Your task to perform on an android device: change keyboard looks Image 0: 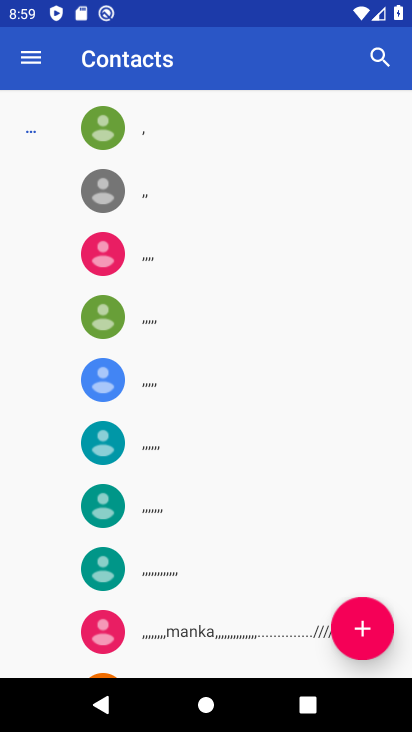
Step 0: press home button
Your task to perform on an android device: change keyboard looks Image 1: 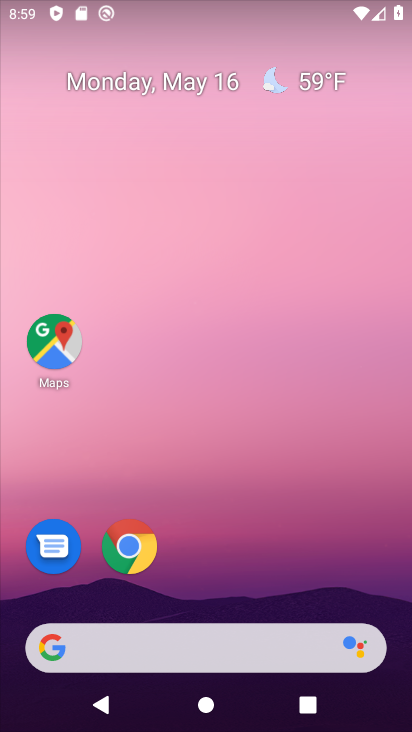
Step 1: drag from (285, 551) to (257, 40)
Your task to perform on an android device: change keyboard looks Image 2: 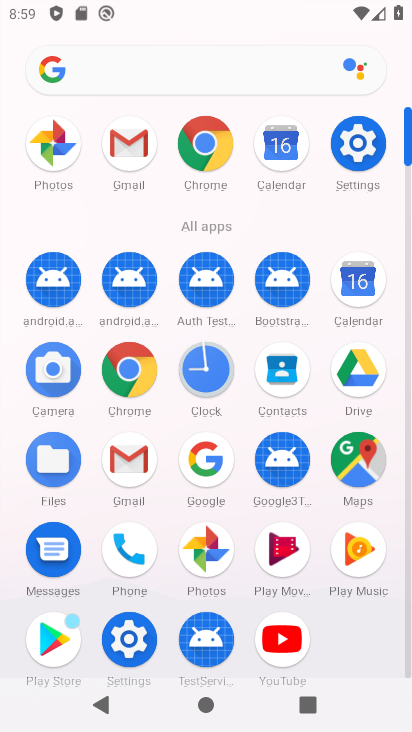
Step 2: click (363, 147)
Your task to perform on an android device: change keyboard looks Image 3: 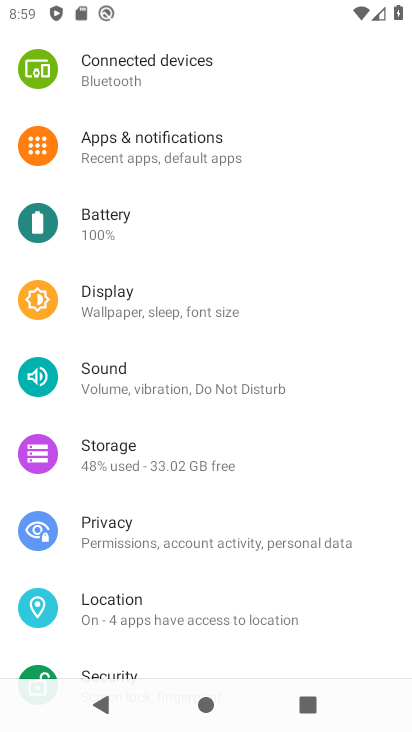
Step 3: drag from (197, 604) to (214, 163)
Your task to perform on an android device: change keyboard looks Image 4: 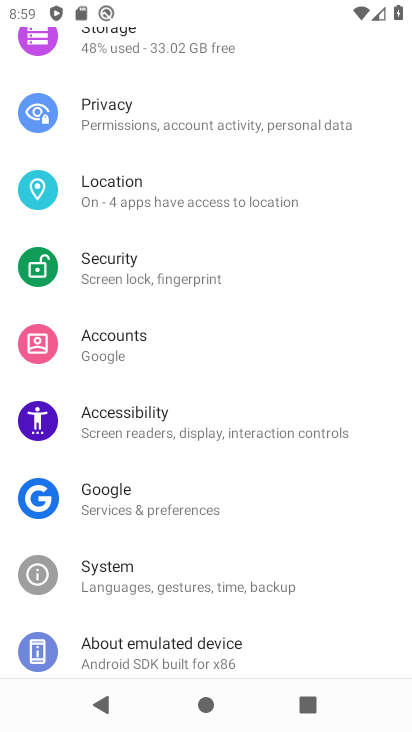
Step 4: drag from (174, 589) to (232, 252)
Your task to perform on an android device: change keyboard looks Image 5: 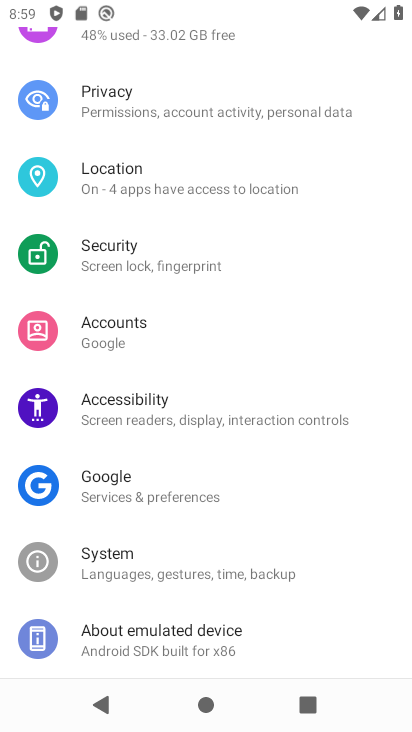
Step 5: click (176, 633)
Your task to perform on an android device: change keyboard looks Image 6: 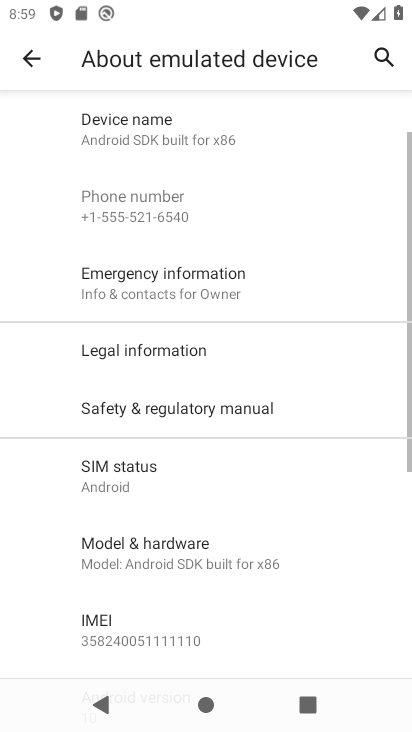
Step 6: drag from (184, 631) to (218, 230)
Your task to perform on an android device: change keyboard looks Image 7: 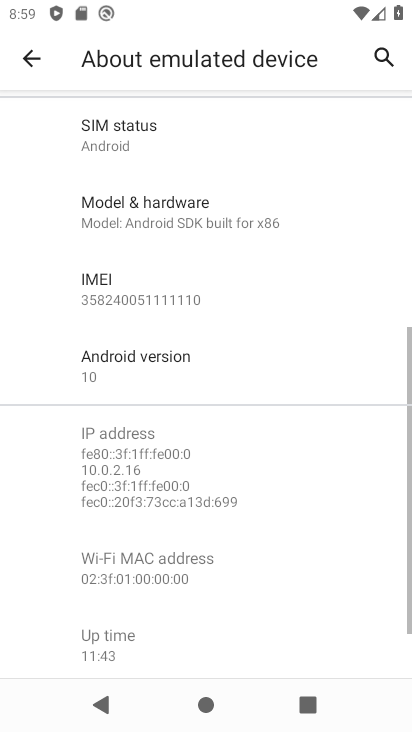
Step 7: click (32, 68)
Your task to perform on an android device: change keyboard looks Image 8: 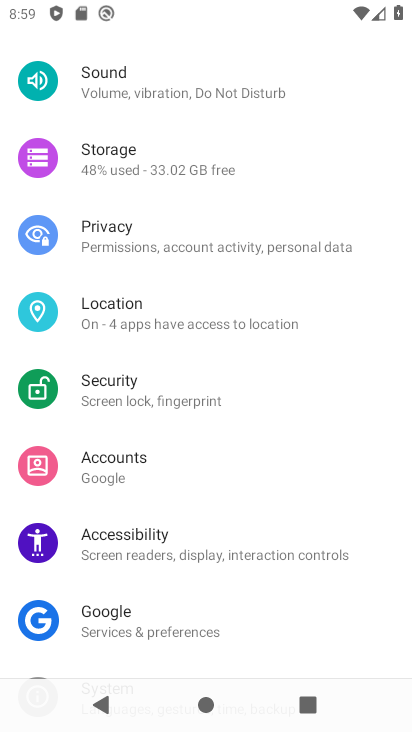
Step 8: drag from (219, 594) to (239, 222)
Your task to perform on an android device: change keyboard looks Image 9: 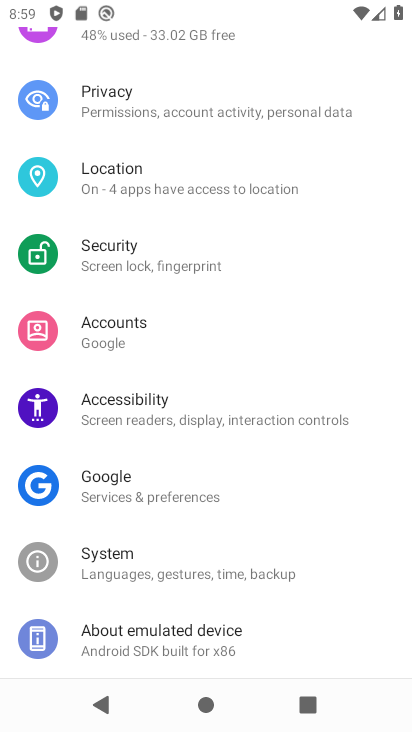
Step 9: drag from (204, 531) to (232, 313)
Your task to perform on an android device: change keyboard looks Image 10: 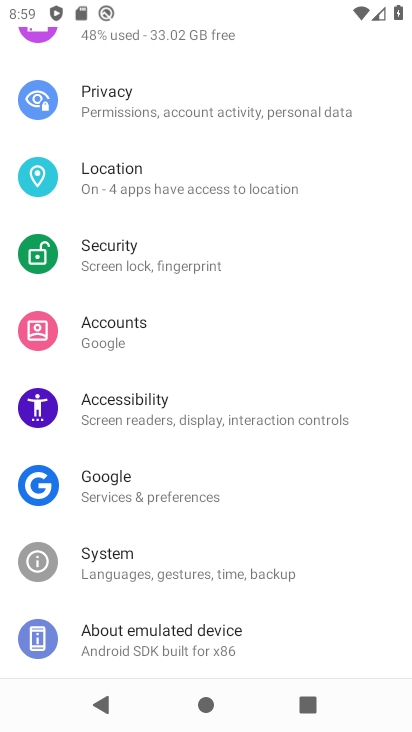
Step 10: click (189, 562)
Your task to perform on an android device: change keyboard looks Image 11: 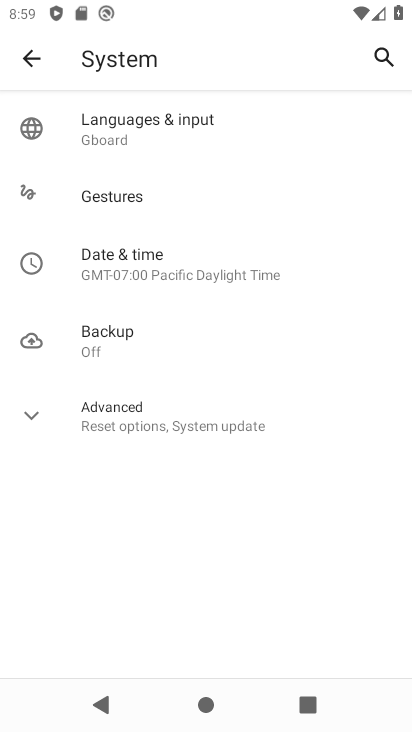
Step 11: click (107, 137)
Your task to perform on an android device: change keyboard looks Image 12: 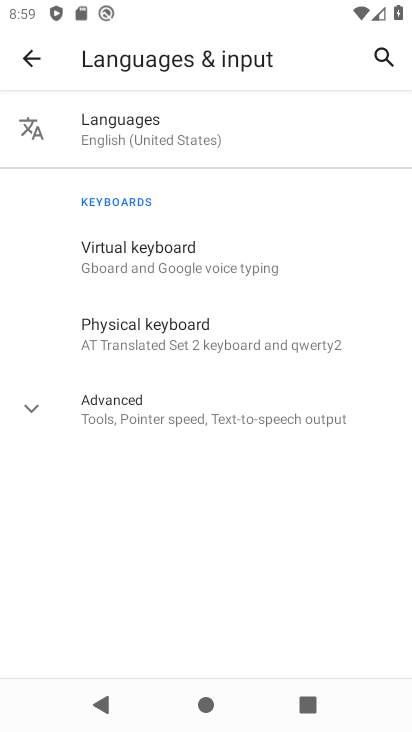
Step 12: click (108, 252)
Your task to perform on an android device: change keyboard looks Image 13: 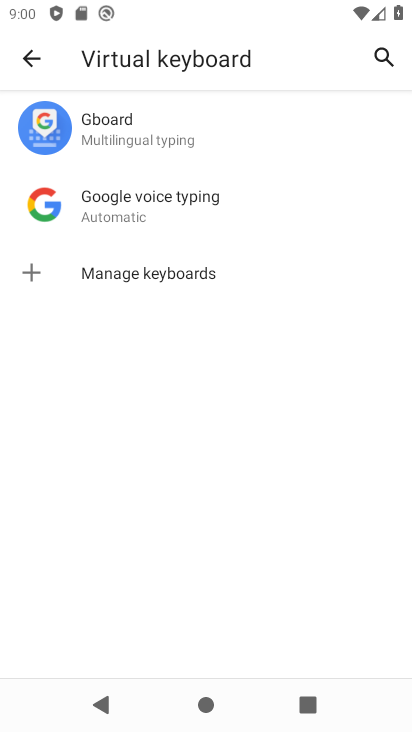
Step 13: click (113, 142)
Your task to perform on an android device: change keyboard looks Image 14: 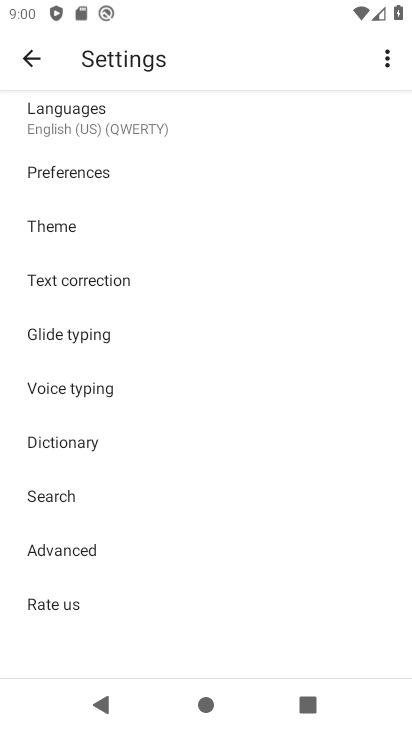
Step 14: click (59, 226)
Your task to perform on an android device: change keyboard looks Image 15: 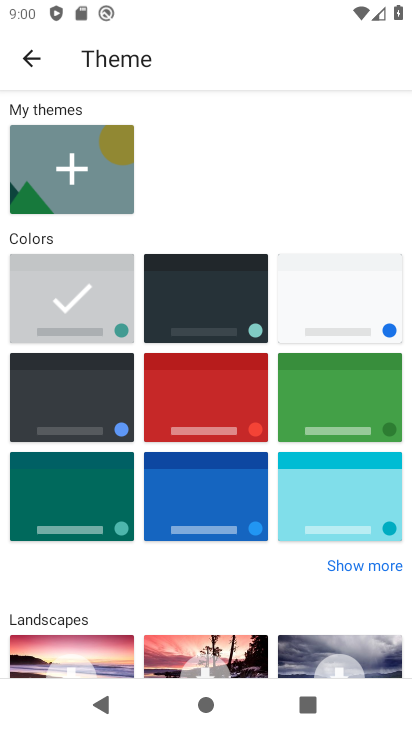
Step 15: click (249, 319)
Your task to perform on an android device: change keyboard looks Image 16: 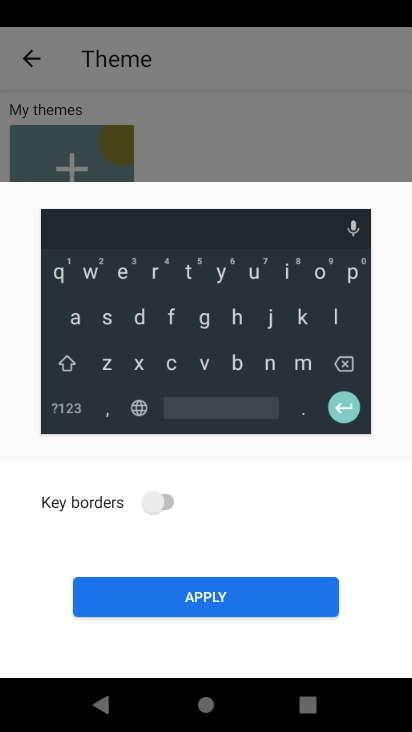
Step 16: click (210, 600)
Your task to perform on an android device: change keyboard looks Image 17: 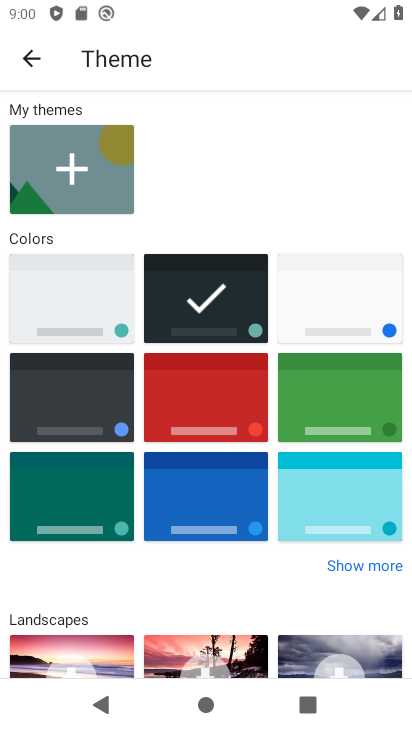
Step 17: task complete